Your task to perform on an android device: Search for apple airpods pro on bestbuy, select the first entry, add it to the cart, then select checkout. Image 0: 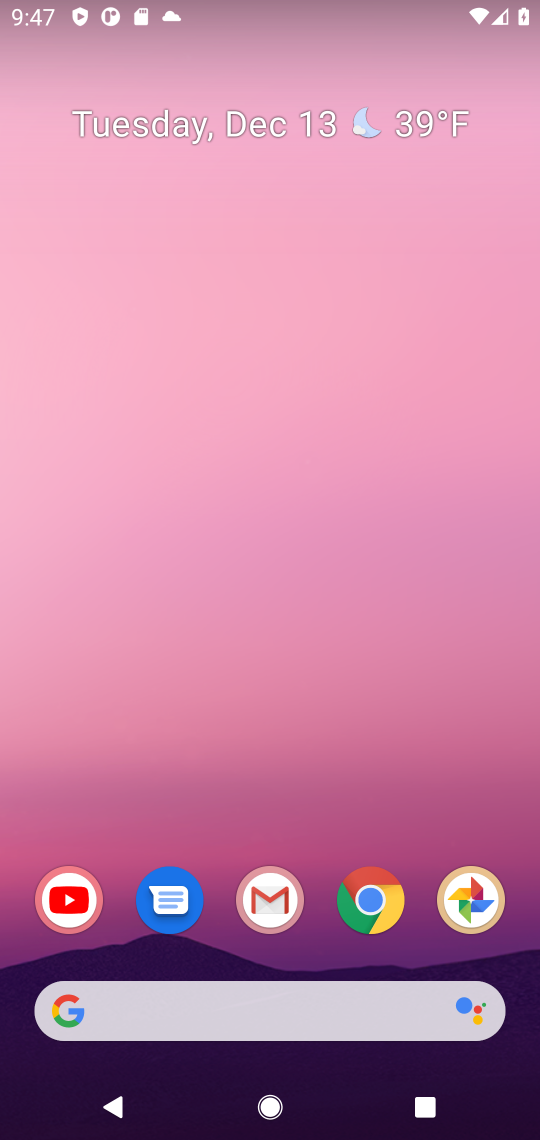
Step 0: task complete